Your task to perform on an android device: check battery use Image 0: 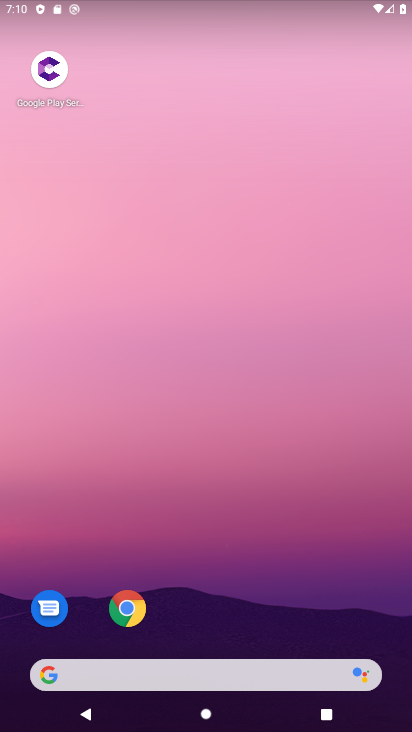
Step 0: drag from (212, 624) to (207, 99)
Your task to perform on an android device: check battery use Image 1: 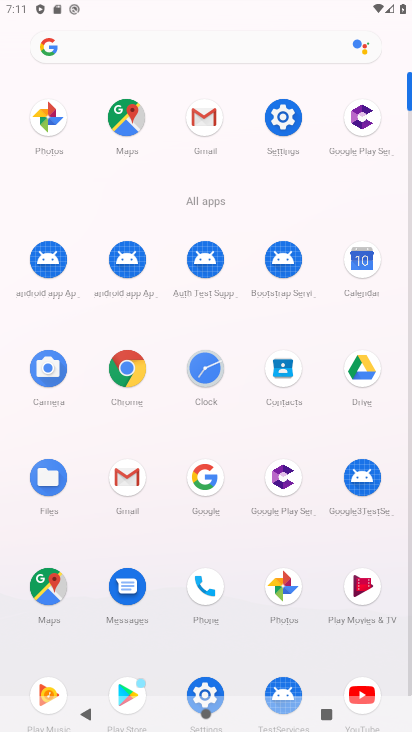
Step 1: click (210, 697)
Your task to perform on an android device: check battery use Image 2: 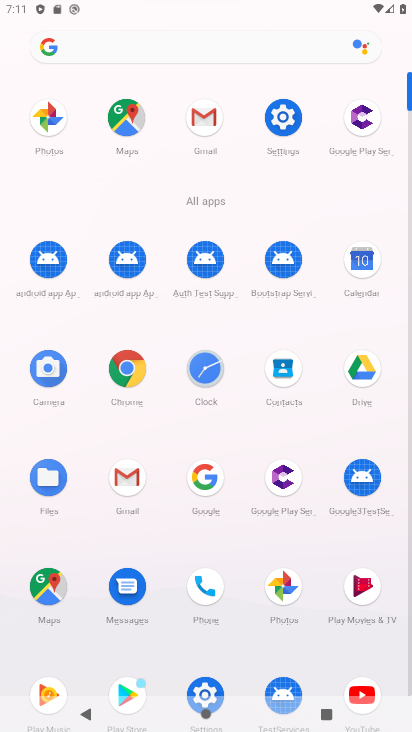
Step 2: click (213, 689)
Your task to perform on an android device: check battery use Image 3: 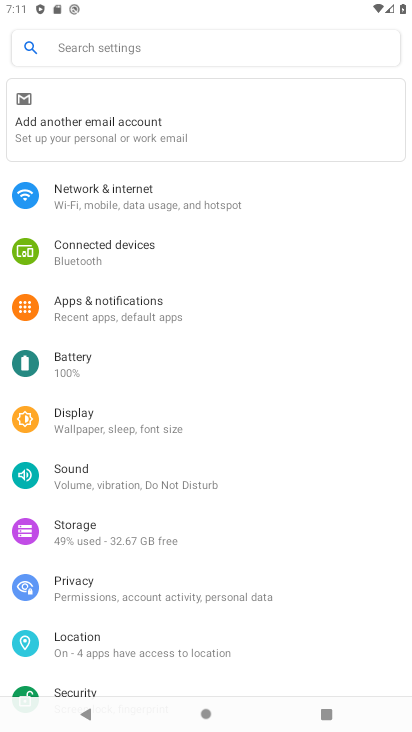
Step 3: click (107, 370)
Your task to perform on an android device: check battery use Image 4: 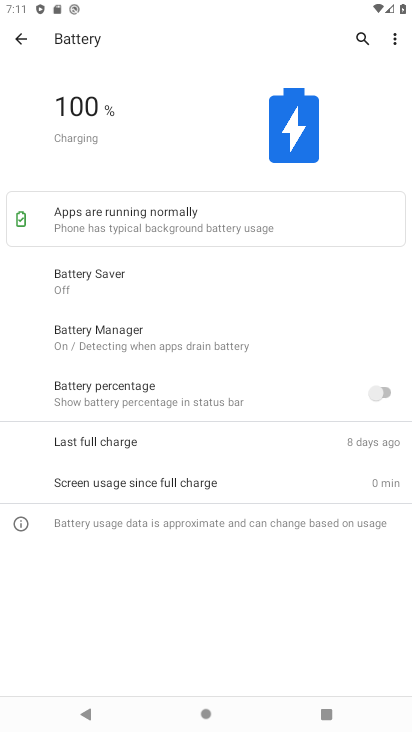
Step 4: task complete